Your task to perform on an android device: Search for hotels in Philadelphia Image 0: 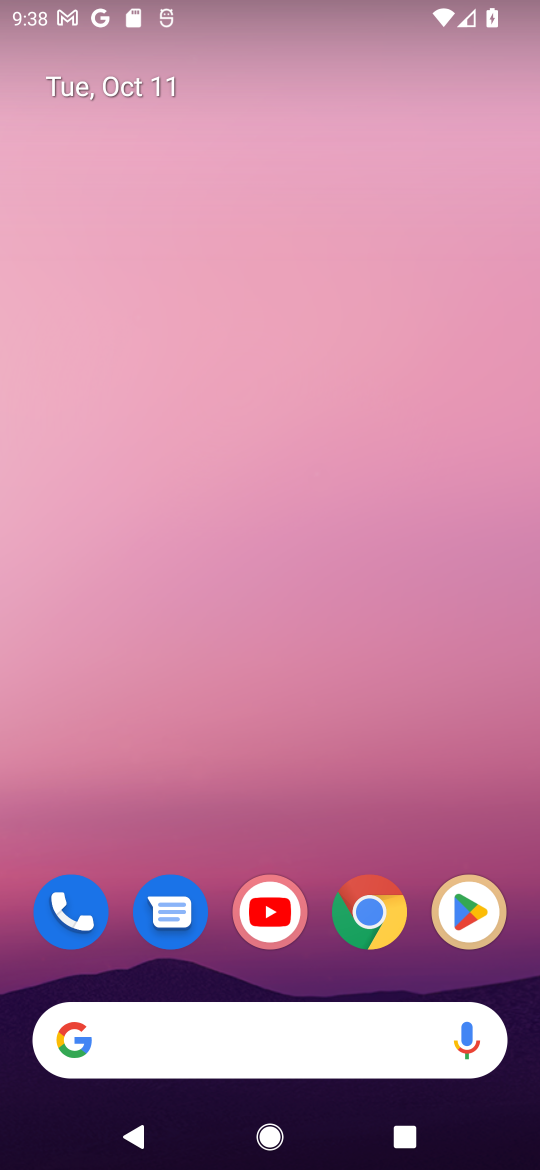
Step 0: click (364, 907)
Your task to perform on an android device: Search for hotels in Philadelphia Image 1: 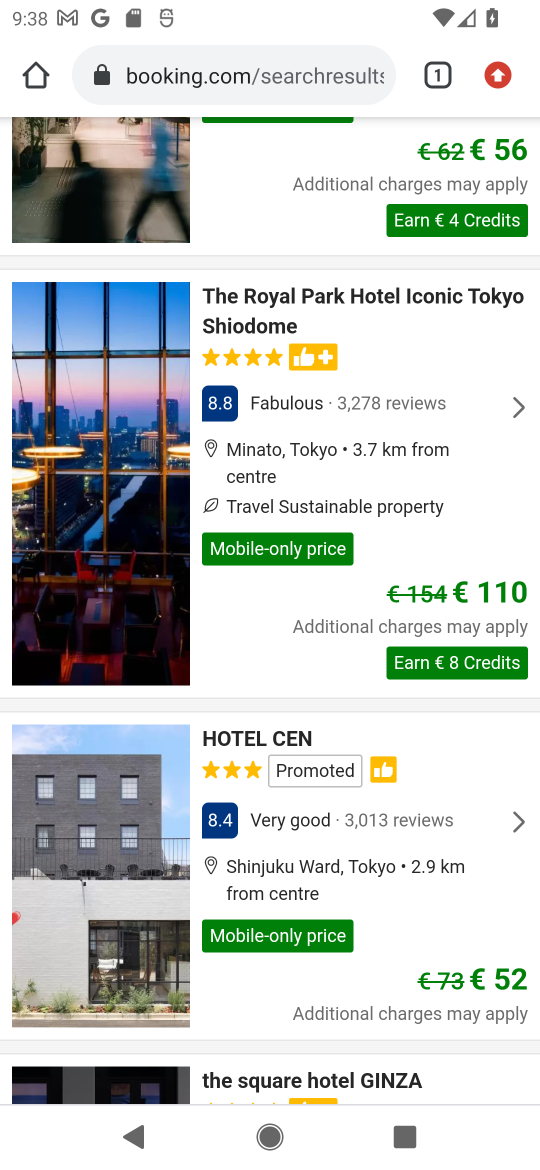
Step 1: click (227, 50)
Your task to perform on an android device: Search for hotels in Philadelphia Image 2: 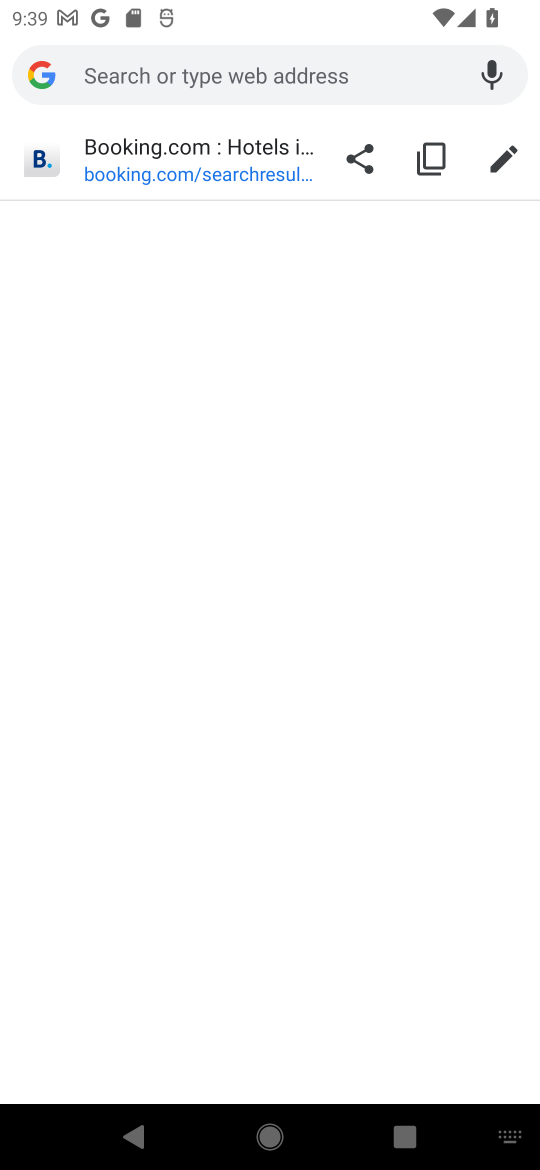
Step 2: type "hotels in philadelphia"
Your task to perform on an android device: Search for hotels in Philadelphia Image 3: 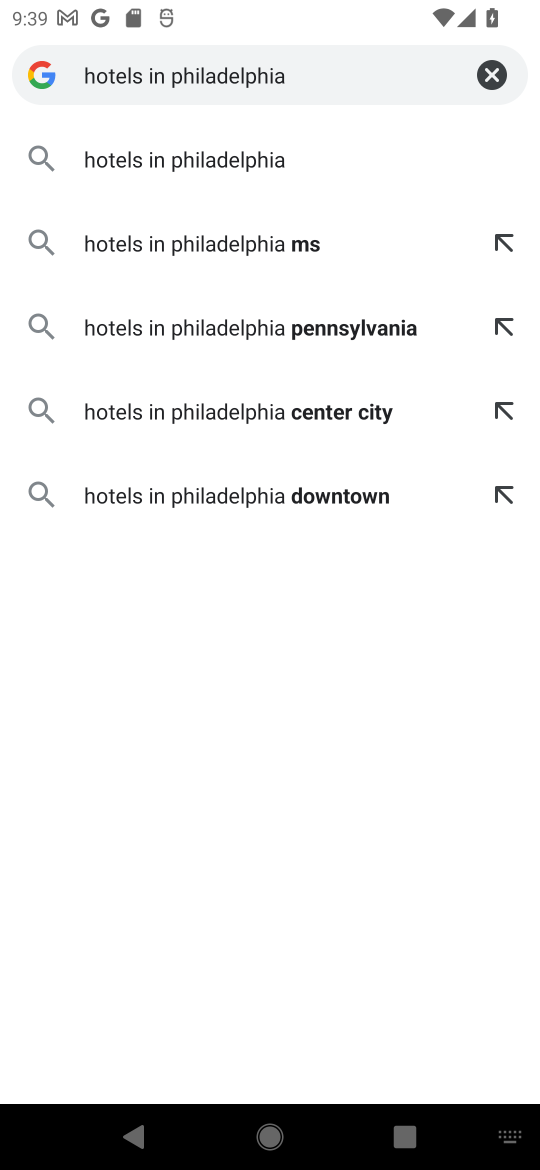
Step 3: click (146, 140)
Your task to perform on an android device: Search for hotels in Philadelphia Image 4: 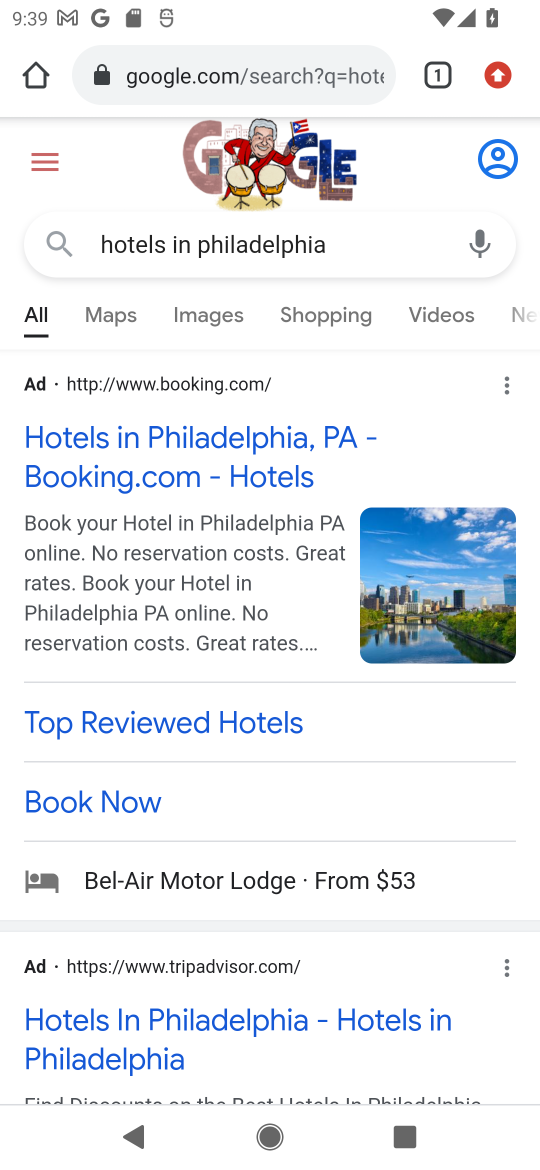
Step 4: click (92, 437)
Your task to perform on an android device: Search for hotels in Philadelphia Image 5: 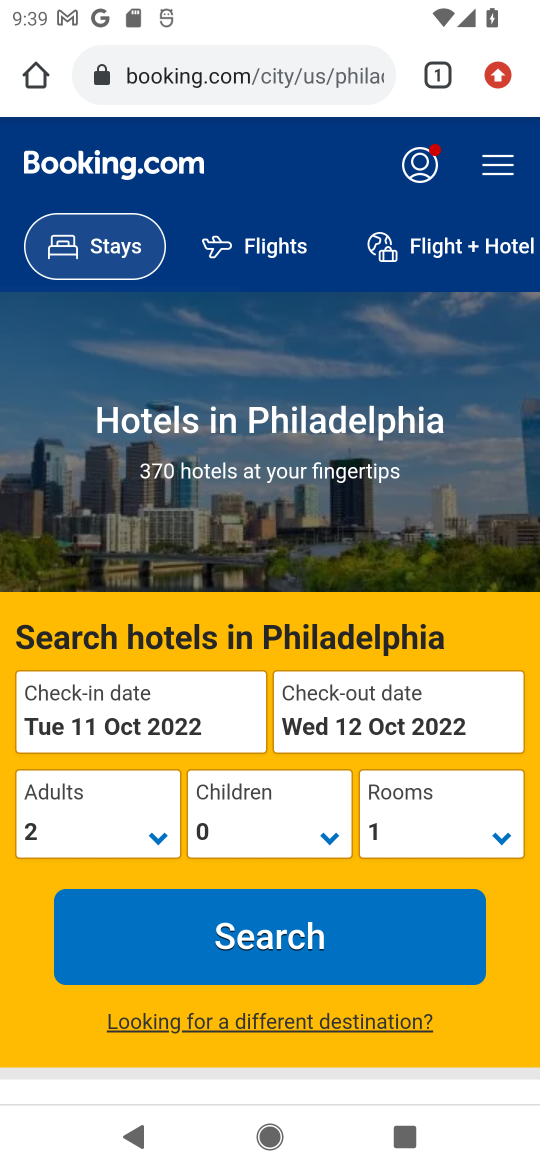
Step 5: click (264, 942)
Your task to perform on an android device: Search for hotels in Philadelphia Image 6: 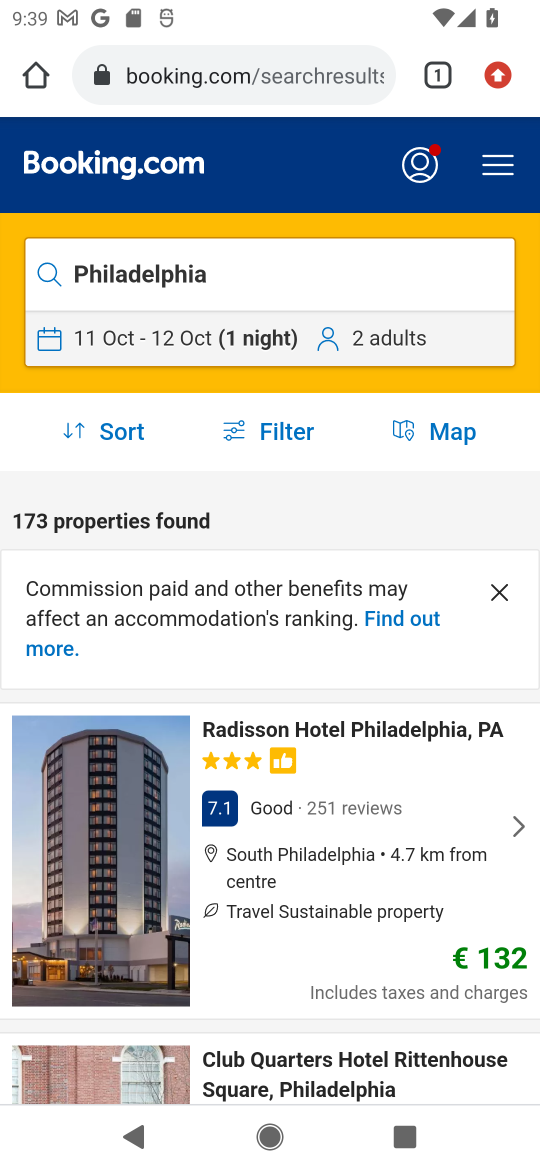
Step 6: task complete